Your task to perform on an android device: all mails in gmail Image 0: 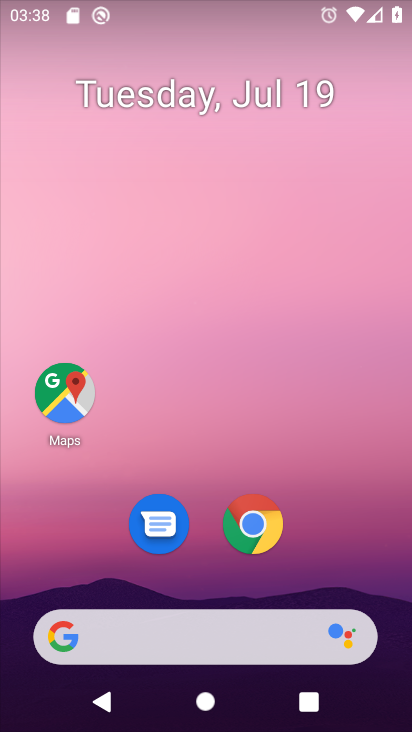
Step 0: drag from (315, 550) to (275, 2)
Your task to perform on an android device: all mails in gmail Image 1: 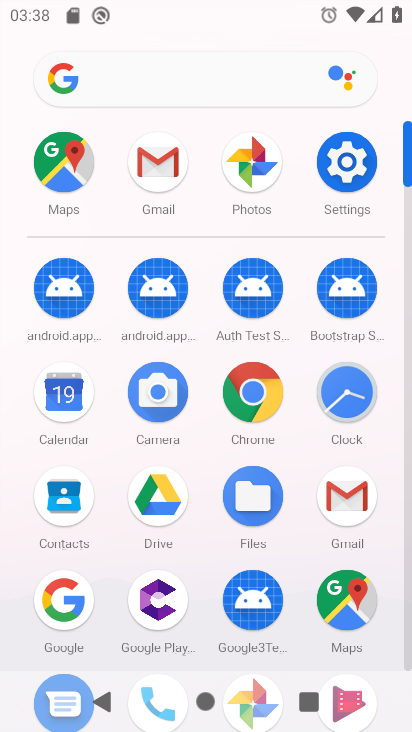
Step 1: click (157, 154)
Your task to perform on an android device: all mails in gmail Image 2: 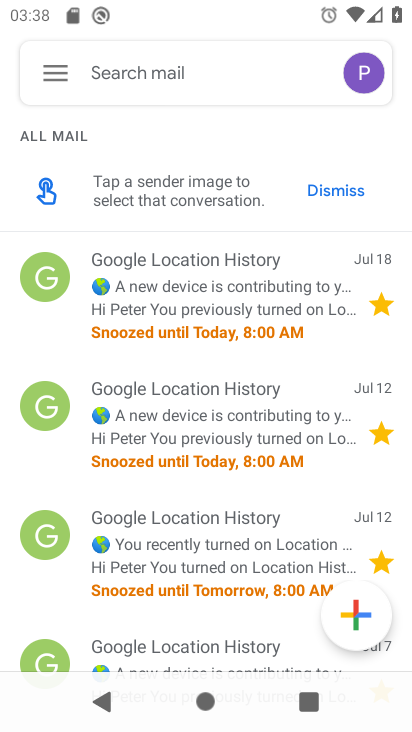
Step 2: task complete